Your task to perform on an android device: Open the web browser Image 0: 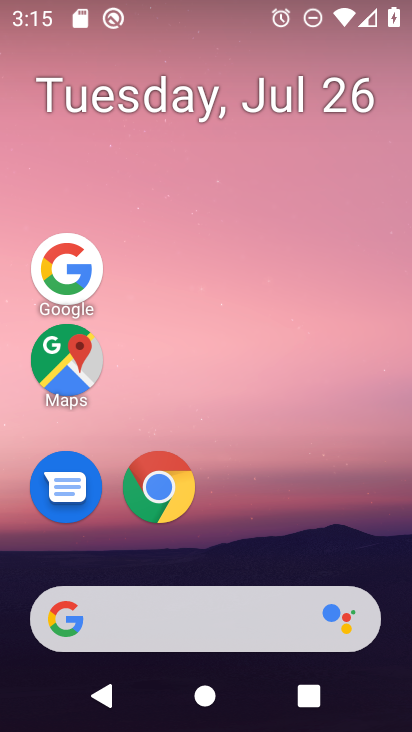
Step 0: drag from (215, 625) to (188, 201)
Your task to perform on an android device: Open the web browser Image 1: 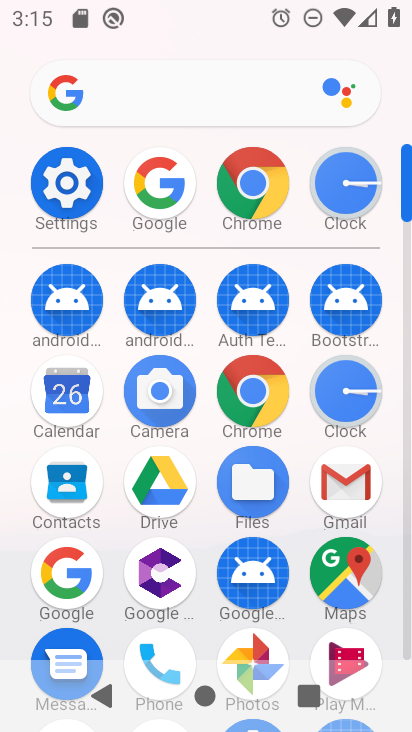
Step 1: click (270, 183)
Your task to perform on an android device: Open the web browser Image 2: 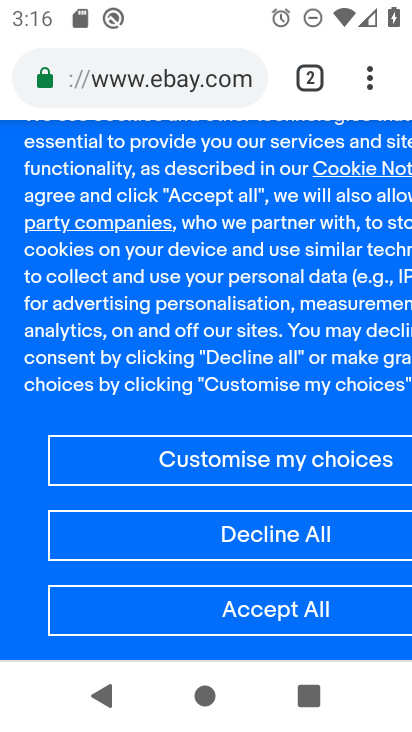
Step 2: task complete